Your task to perform on an android device: set the timer Image 0: 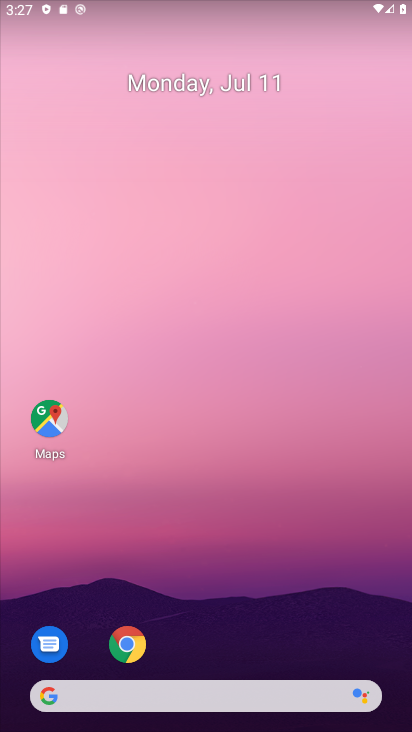
Step 0: drag from (252, 727) to (237, 93)
Your task to perform on an android device: set the timer Image 1: 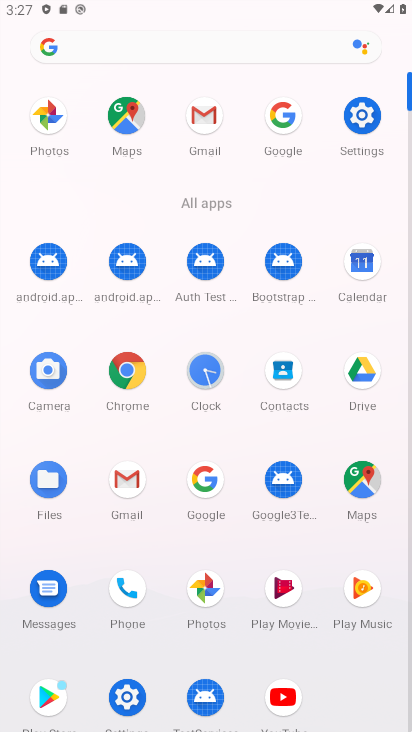
Step 1: click (207, 369)
Your task to perform on an android device: set the timer Image 2: 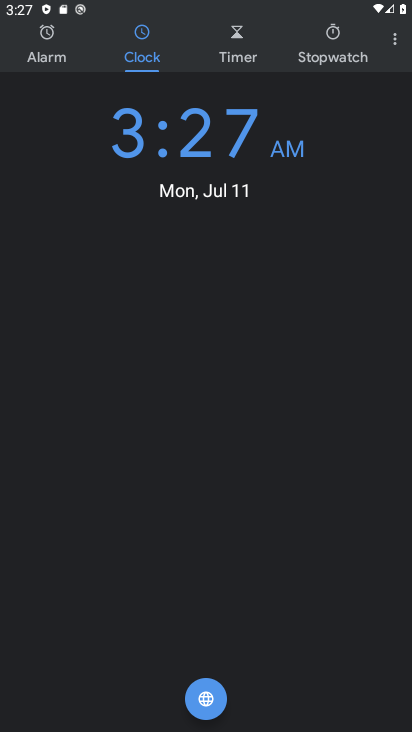
Step 2: click (239, 35)
Your task to perform on an android device: set the timer Image 3: 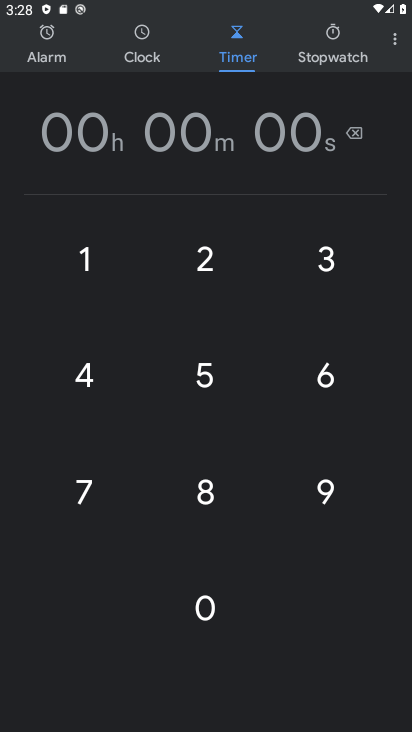
Step 3: click (214, 261)
Your task to perform on an android device: set the timer Image 4: 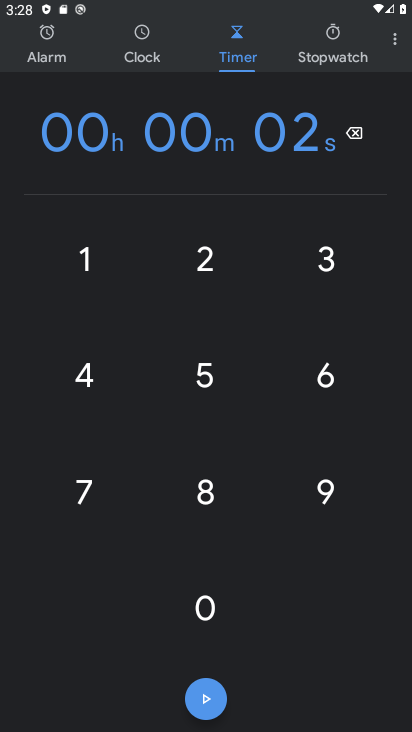
Step 4: click (84, 375)
Your task to perform on an android device: set the timer Image 5: 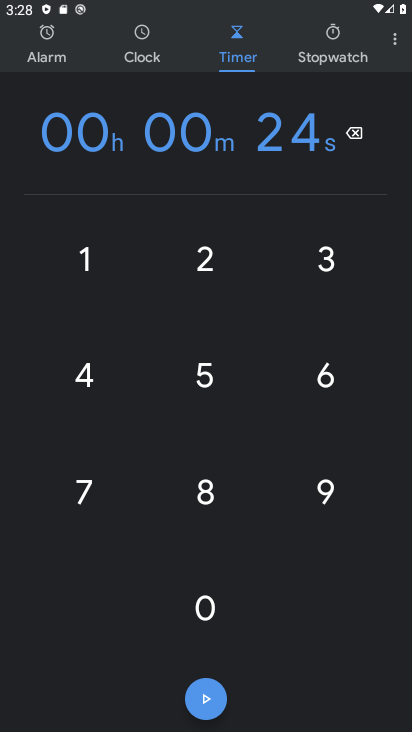
Step 5: click (203, 374)
Your task to perform on an android device: set the timer Image 6: 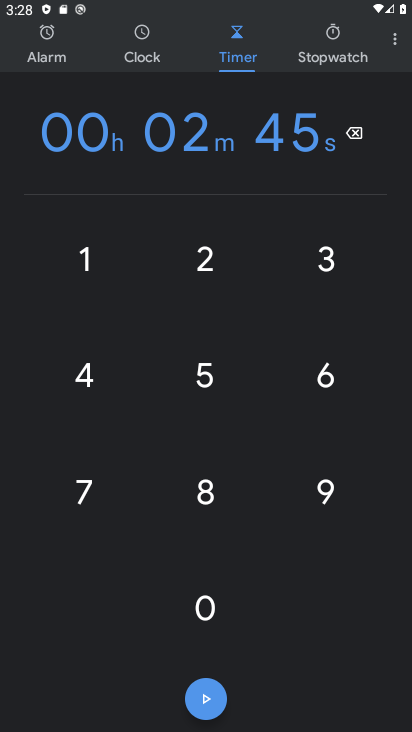
Step 6: click (203, 374)
Your task to perform on an android device: set the timer Image 7: 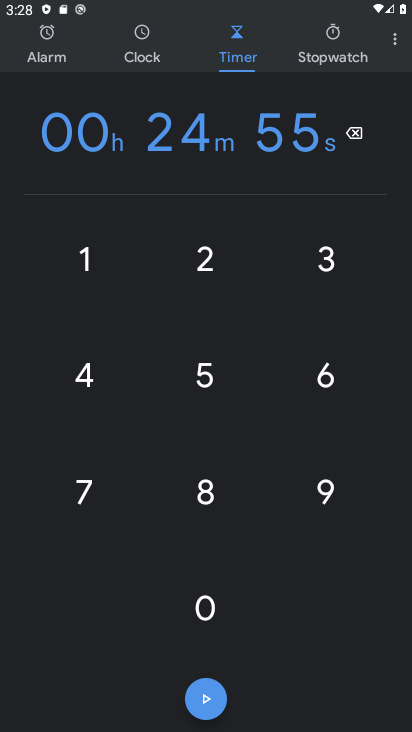
Step 7: click (210, 696)
Your task to perform on an android device: set the timer Image 8: 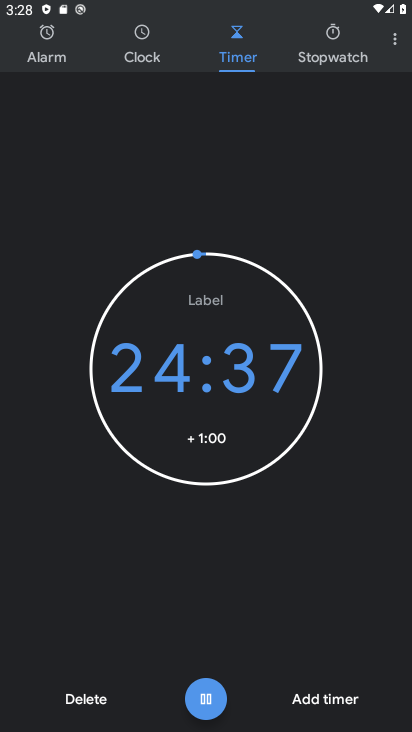
Step 8: task complete